Your task to perform on an android device: empty trash in google photos Image 0: 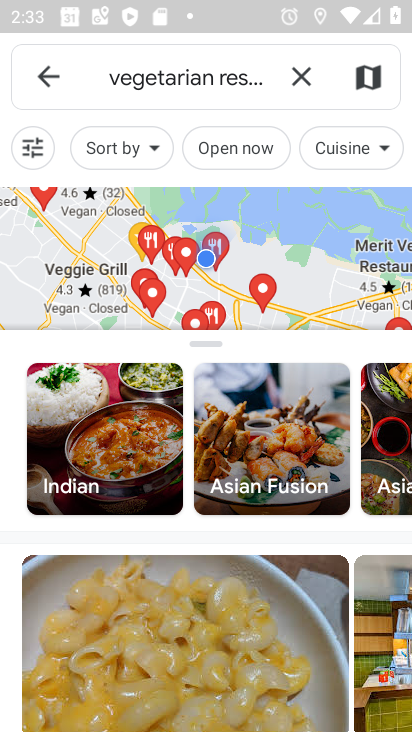
Step 0: press home button
Your task to perform on an android device: empty trash in google photos Image 1: 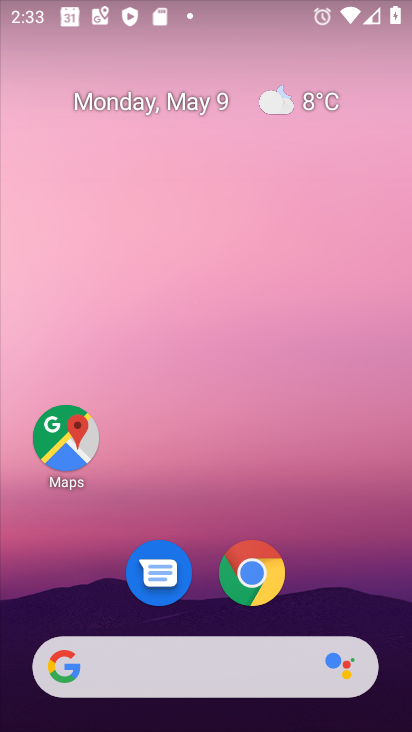
Step 1: drag from (138, 669) to (222, 220)
Your task to perform on an android device: empty trash in google photos Image 2: 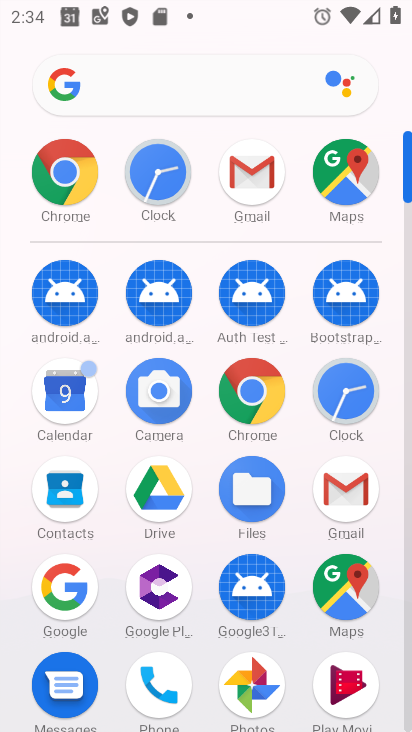
Step 2: click (244, 684)
Your task to perform on an android device: empty trash in google photos Image 3: 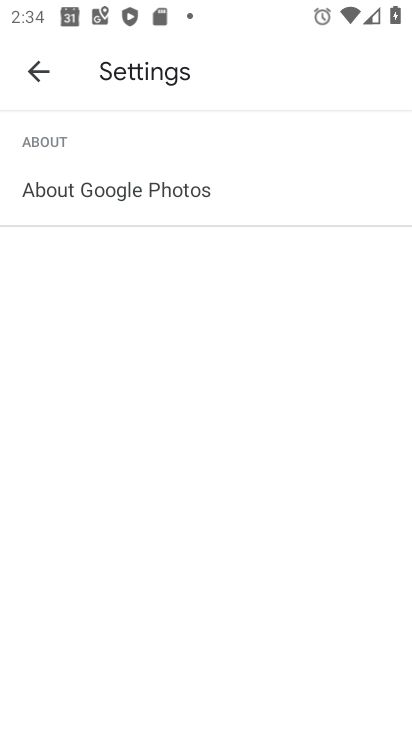
Step 3: click (39, 71)
Your task to perform on an android device: empty trash in google photos Image 4: 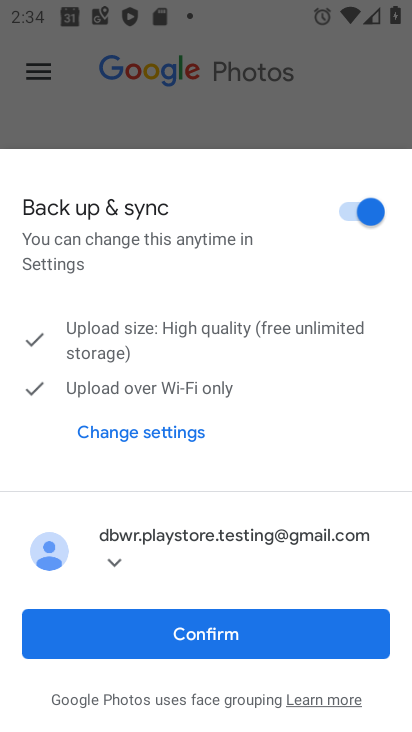
Step 4: click (181, 625)
Your task to perform on an android device: empty trash in google photos Image 5: 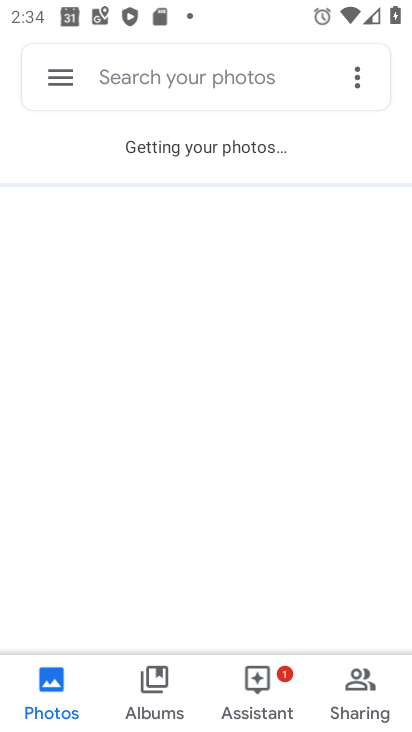
Step 5: click (66, 81)
Your task to perform on an android device: empty trash in google photos Image 6: 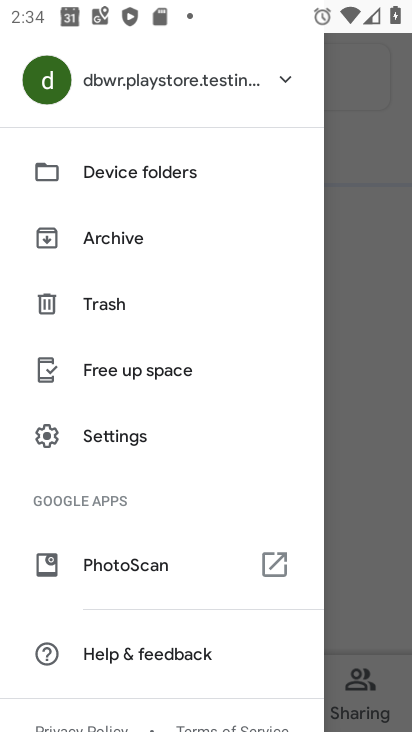
Step 6: click (106, 299)
Your task to perform on an android device: empty trash in google photos Image 7: 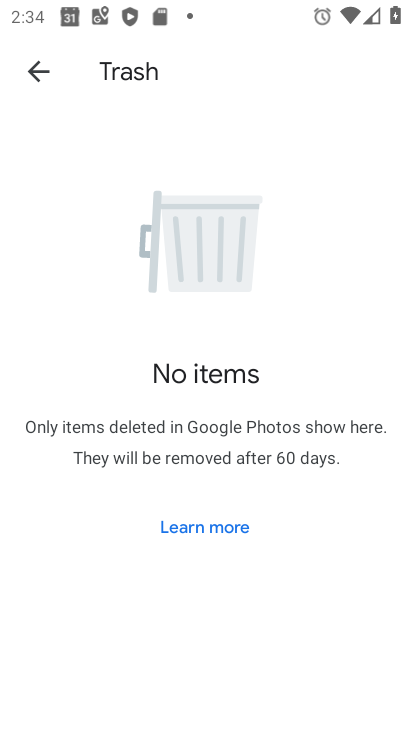
Step 7: task complete